Your task to perform on an android device: turn off improve location accuracy Image 0: 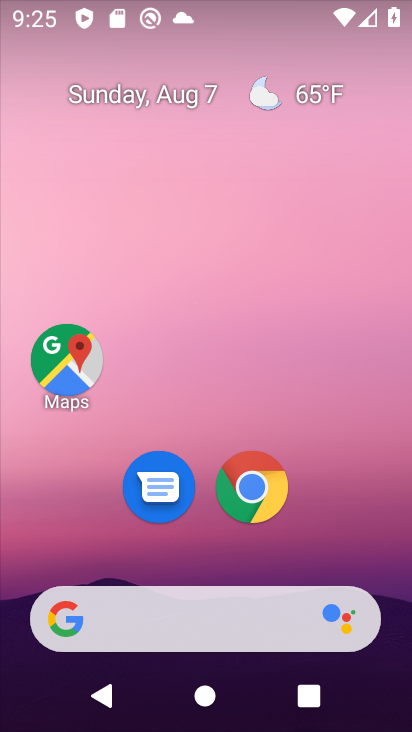
Step 0: drag from (357, 581) to (319, 37)
Your task to perform on an android device: turn off improve location accuracy Image 1: 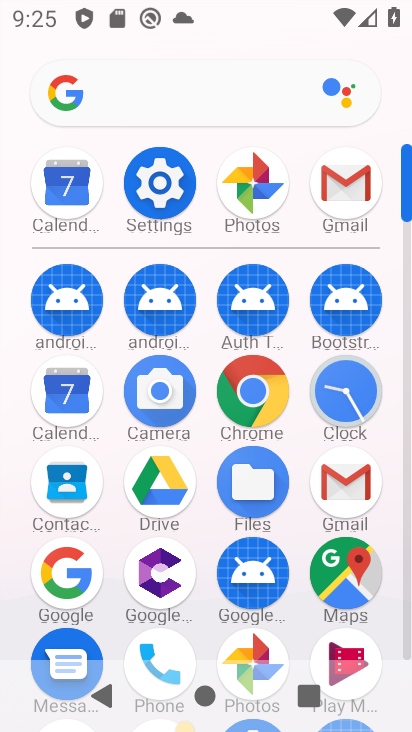
Step 1: click (146, 187)
Your task to perform on an android device: turn off improve location accuracy Image 2: 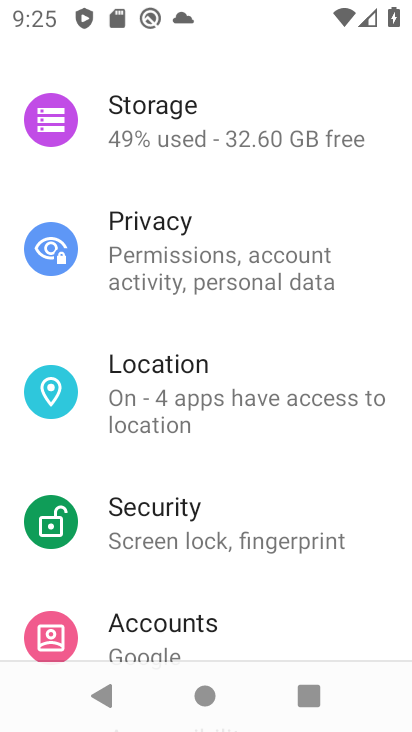
Step 2: click (183, 381)
Your task to perform on an android device: turn off improve location accuracy Image 3: 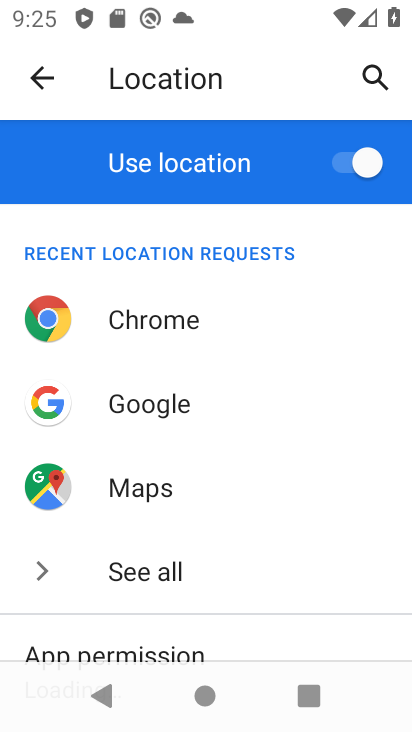
Step 3: drag from (267, 631) to (288, 64)
Your task to perform on an android device: turn off improve location accuracy Image 4: 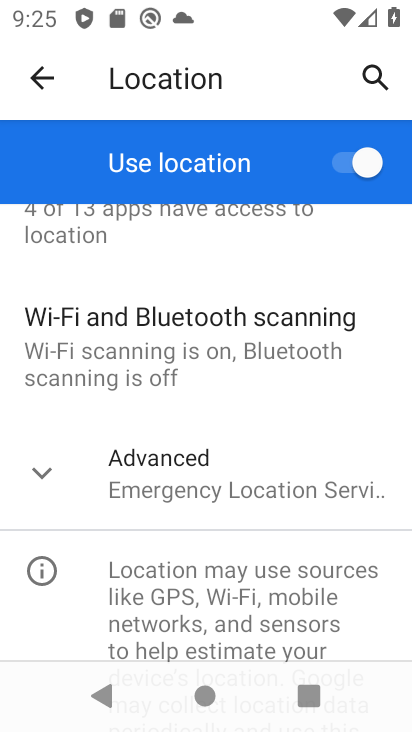
Step 4: click (53, 471)
Your task to perform on an android device: turn off improve location accuracy Image 5: 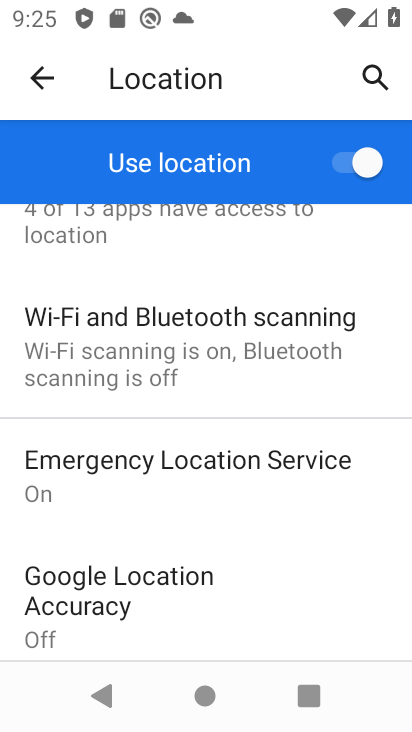
Step 5: drag from (381, 622) to (335, 78)
Your task to perform on an android device: turn off improve location accuracy Image 6: 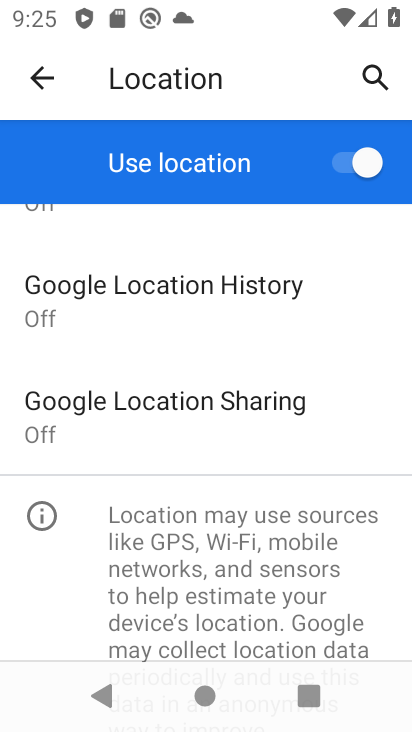
Step 6: drag from (258, 288) to (264, 492)
Your task to perform on an android device: turn off improve location accuracy Image 7: 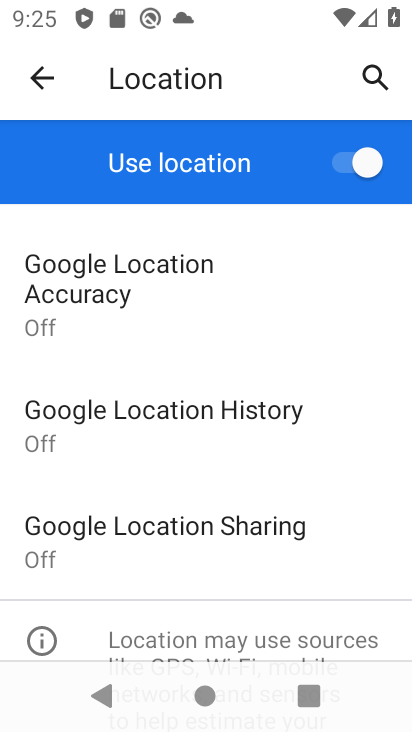
Step 7: click (148, 279)
Your task to perform on an android device: turn off improve location accuracy Image 8: 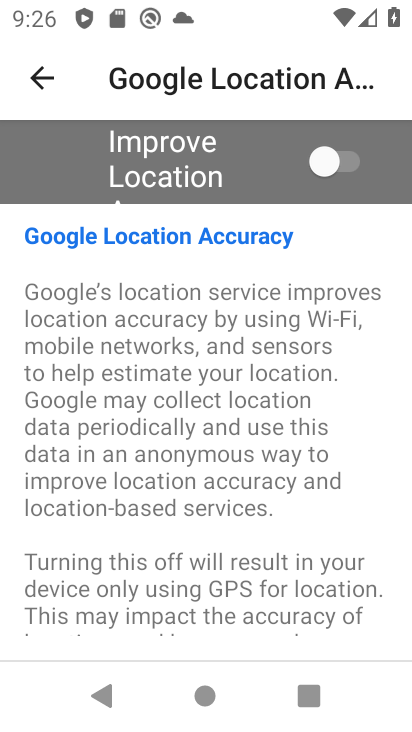
Step 8: task complete